Your task to perform on an android device: turn pop-ups off in chrome Image 0: 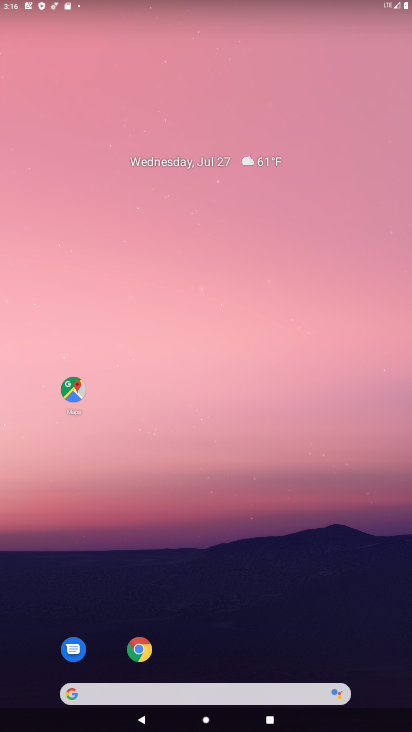
Step 0: click (135, 654)
Your task to perform on an android device: turn pop-ups off in chrome Image 1: 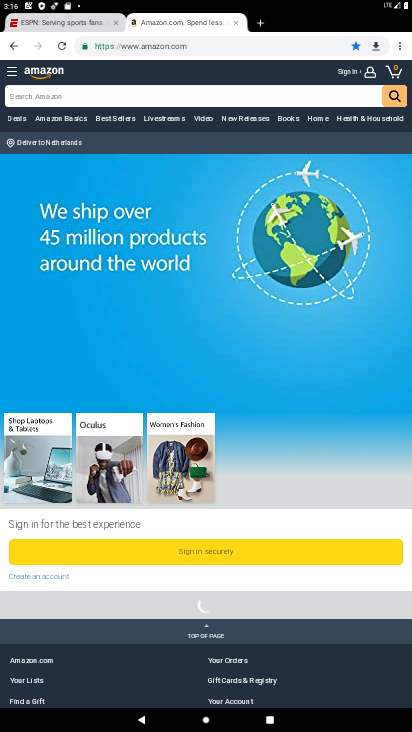
Step 1: click (395, 46)
Your task to perform on an android device: turn pop-ups off in chrome Image 2: 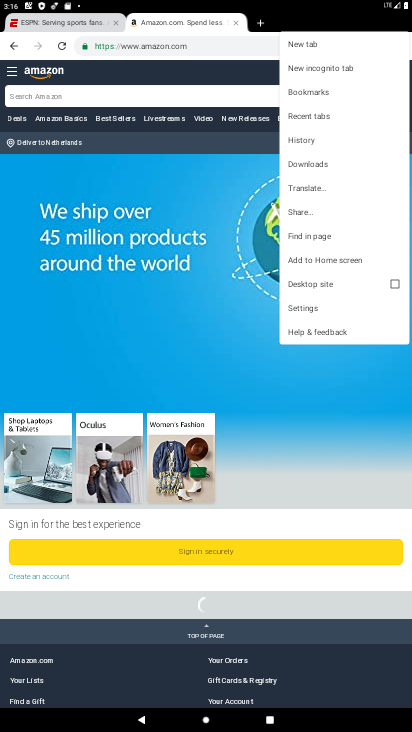
Step 2: click (315, 300)
Your task to perform on an android device: turn pop-ups off in chrome Image 3: 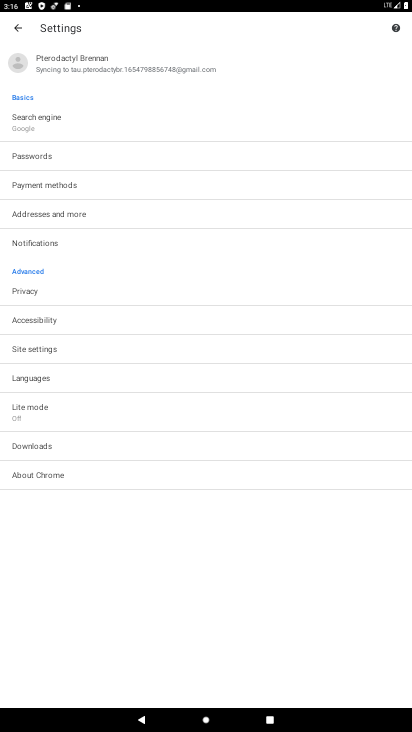
Step 3: click (37, 347)
Your task to perform on an android device: turn pop-ups off in chrome Image 4: 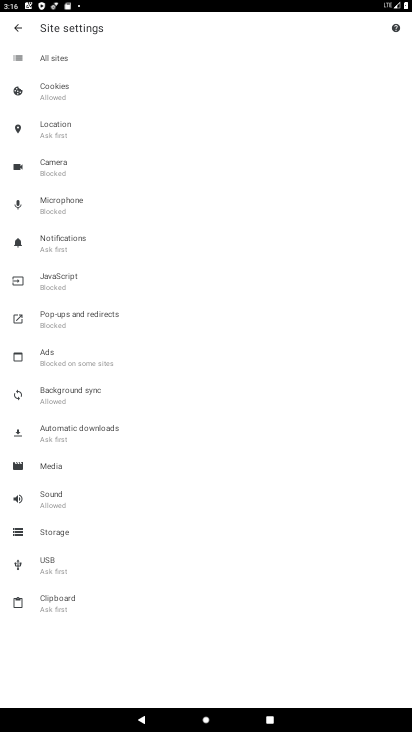
Step 4: click (57, 316)
Your task to perform on an android device: turn pop-ups off in chrome Image 5: 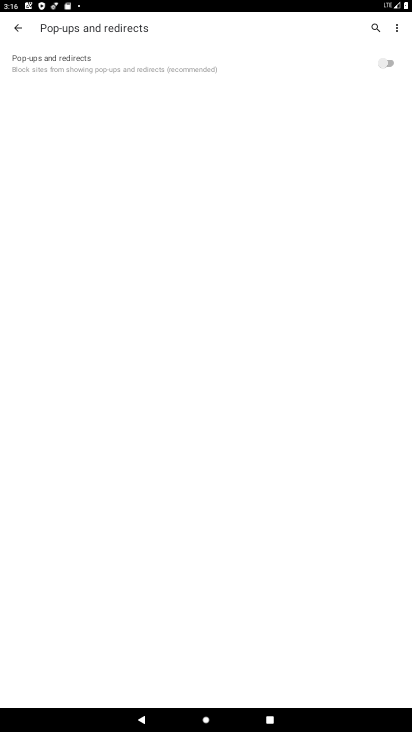
Step 5: task complete